Your task to perform on an android device: check out phone information Image 0: 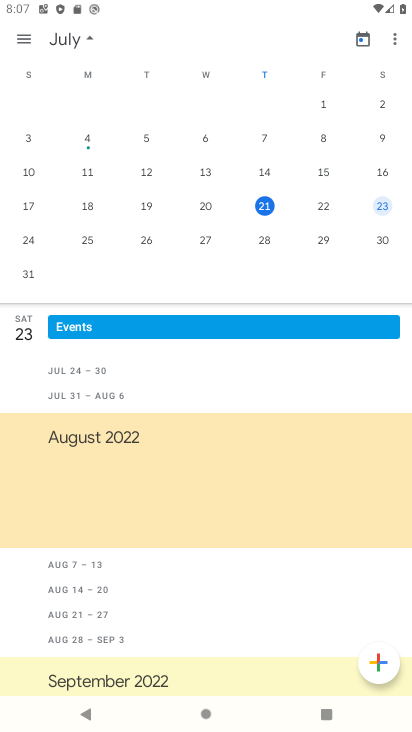
Step 0: press home button
Your task to perform on an android device: check out phone information Image 1: 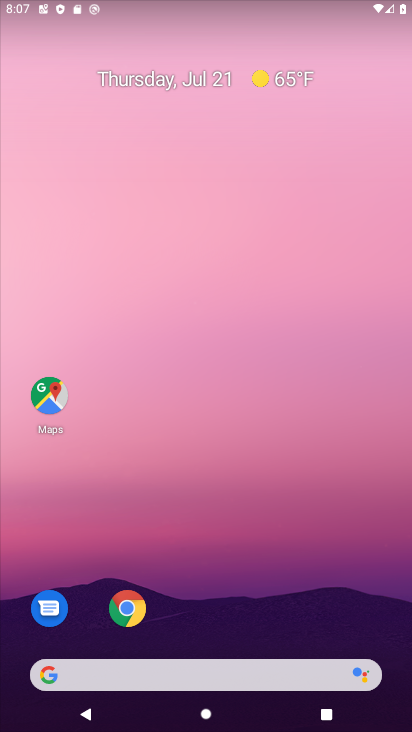
Step 1: drag from (177, 674) to (203, 168)
Your task to perform on an android device: check out phone information Image 2: 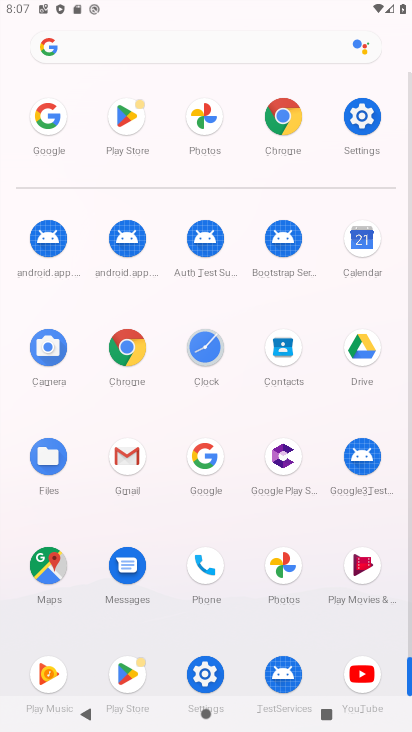
Step 2: click (362, 116)
Your task to perform on an android device: check out phone information Image 3: 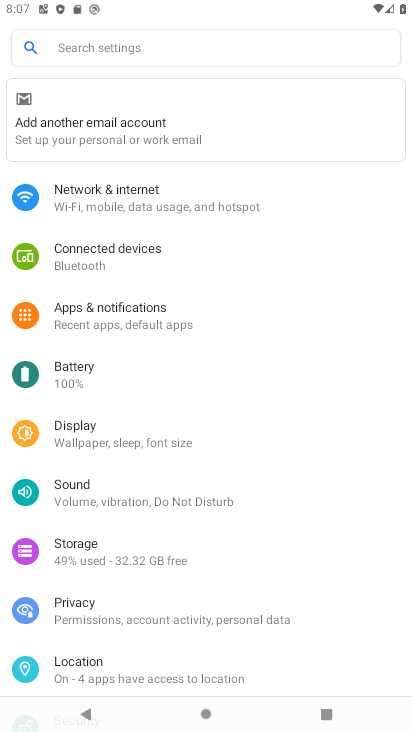
Step 3: drag from (83, 420) to (129, 326)
Your task to perform on an android device: check out phone information Image 4: 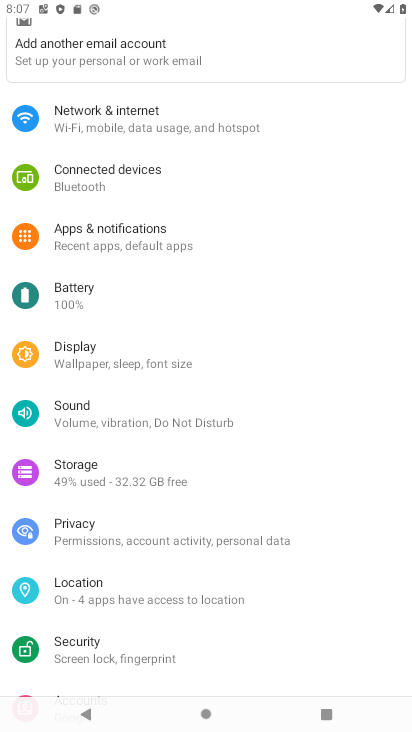
Step 4: drag from (103, 497) to (189, 397)
Your task to perform on an android device: check out phone information Image 5: 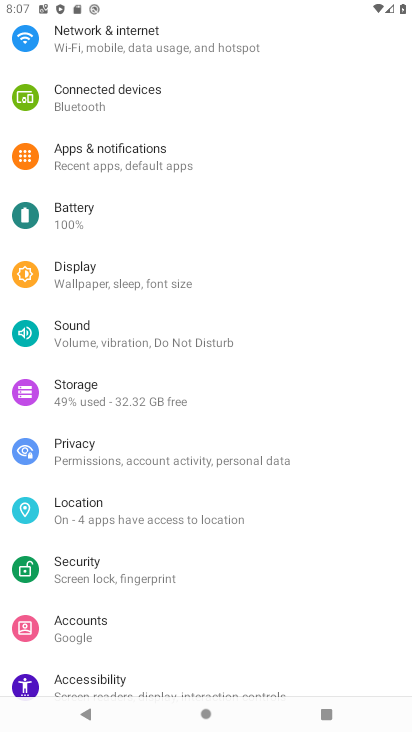
Step 5: drag from (117, 502) to (200, 406)
Your task to perform on an android device: check out phone information Image 6: 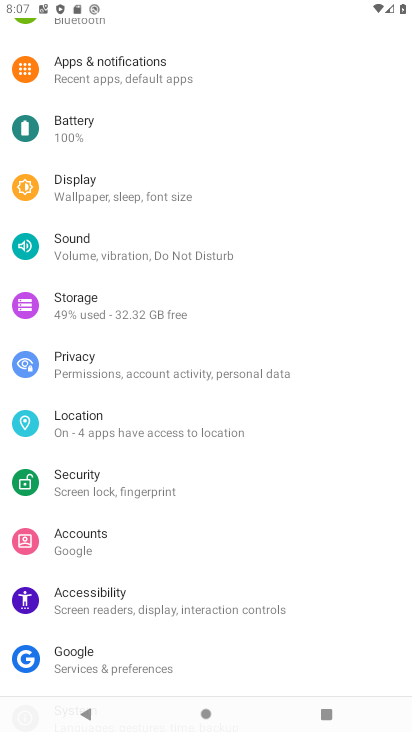
Step 6: drag from (120, 521) to (192, 429)
Your task to perform on an android device: check out phone information Image 7: 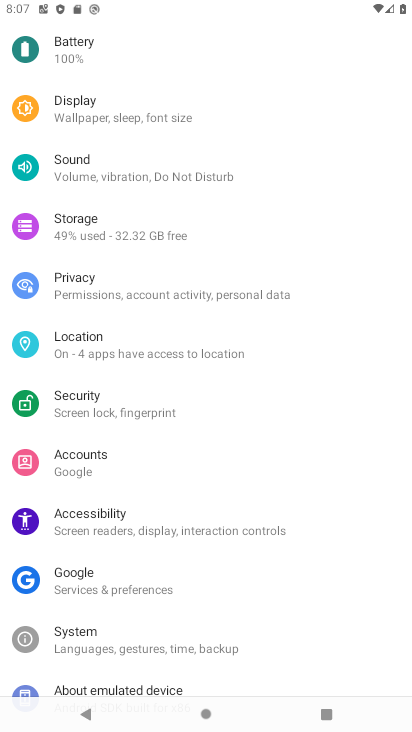
Step 7: drag from (105, 544) to (196, 426)
Your task to perform on an android device: check out phone information Image 8: 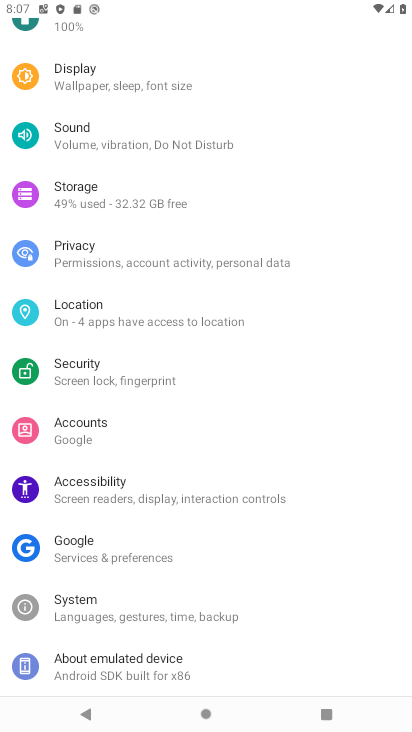
Step 8: click (99, 664)
Your task to perform on an android device: check out phone information Image 9: 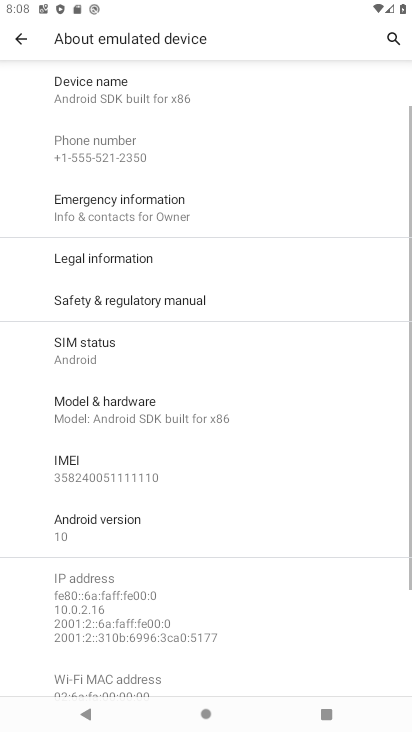
Step 9: task complete